Your task to perform on an android device: read, delete, or share a saved page in the chrome app Image 0: 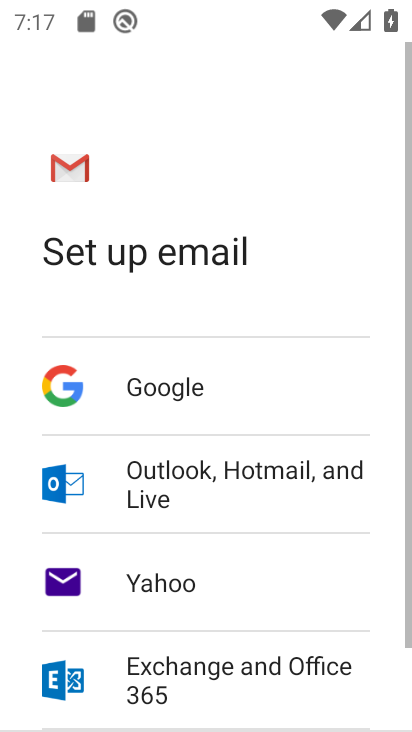
Step 0: press home button
Your task to perform on an android device: read, delete, or share a saved page in the chrome app Image 1: 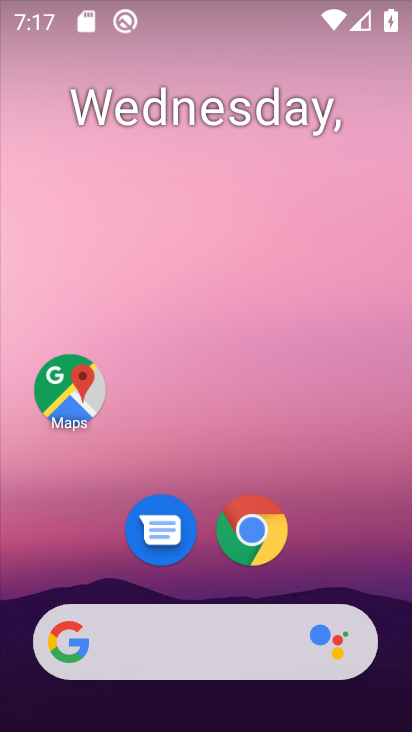
Step 1: drag from (385, 626) to (297, 55)
Your task to perform on an android device: read, delete, or share a saved page in the chrome app Image 2: 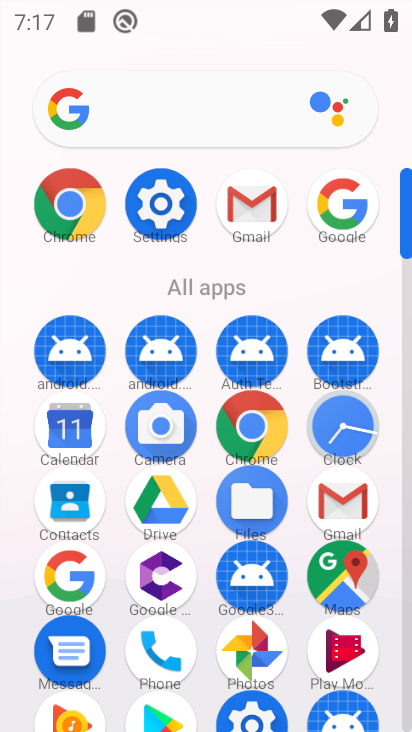
Step 2: click (257, 438)
Your task to perform on an android device: read, delete, or share a saved page in the chrome app Image 3: 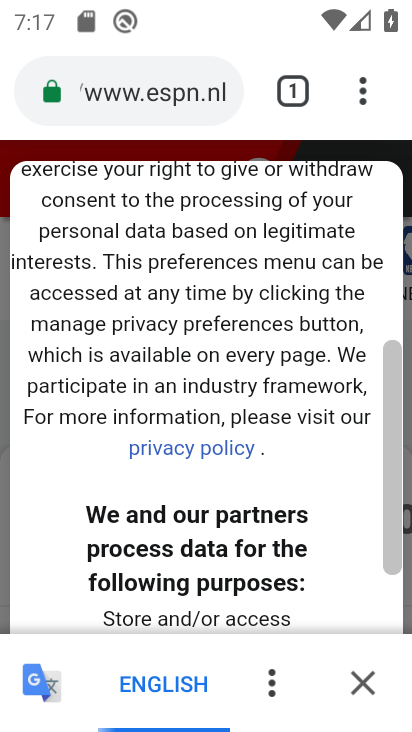
Step 3: task complete